Your task to perform on an android device: Open the stopwatch Image 0: 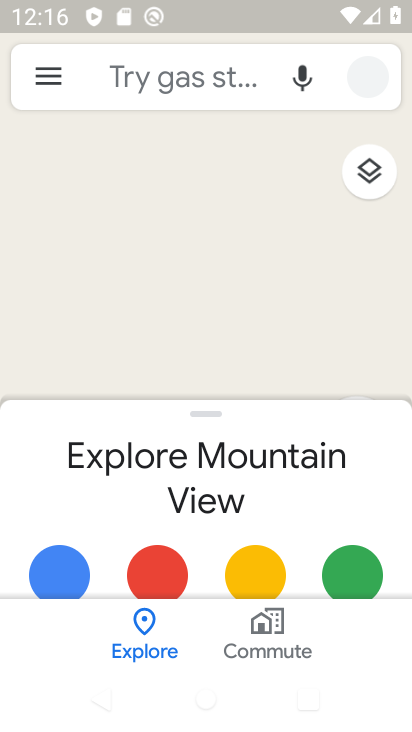
Step 0: press home button
Your task to perform on an android device: Open the stopwatch Image 1: 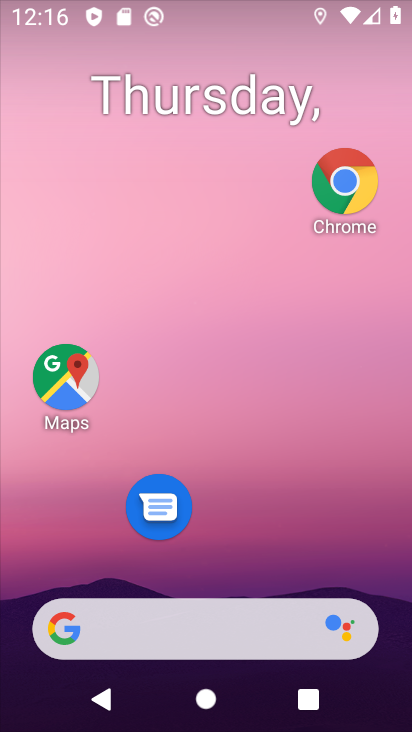
Step 1: drag from (167, 530) to (205, 222)
Your task to perform on an android device: Open the stopwatch Image 2: 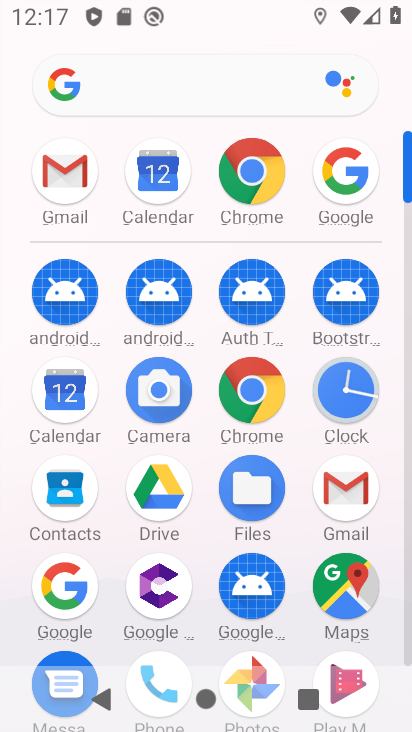
Step 2: click (358, 402)
Your task to perform on an android device: Open the stopwatch Image 3: 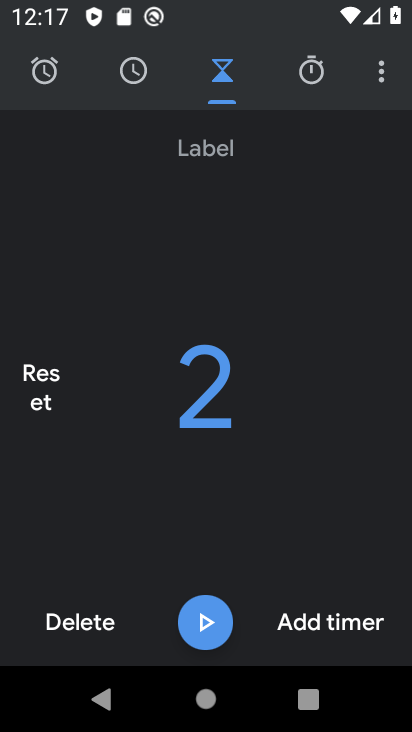
Step 3: click (332, 78)
Your task to perform on an android device: Open the stopwatch Image 4: 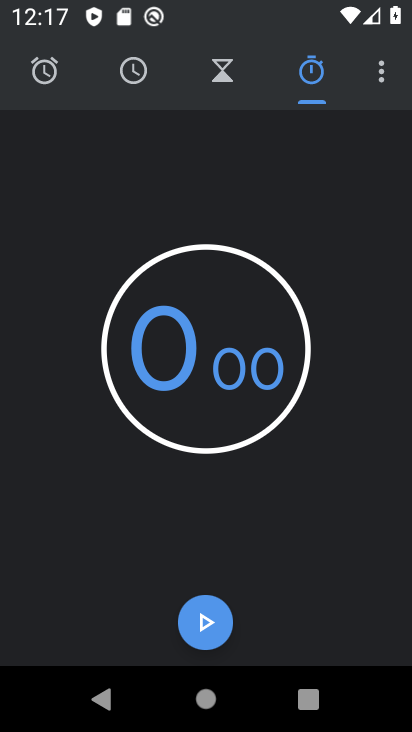
Step 4: task complete